Your task to perform on an android device: install app "Airtel Thanks" Image 0: 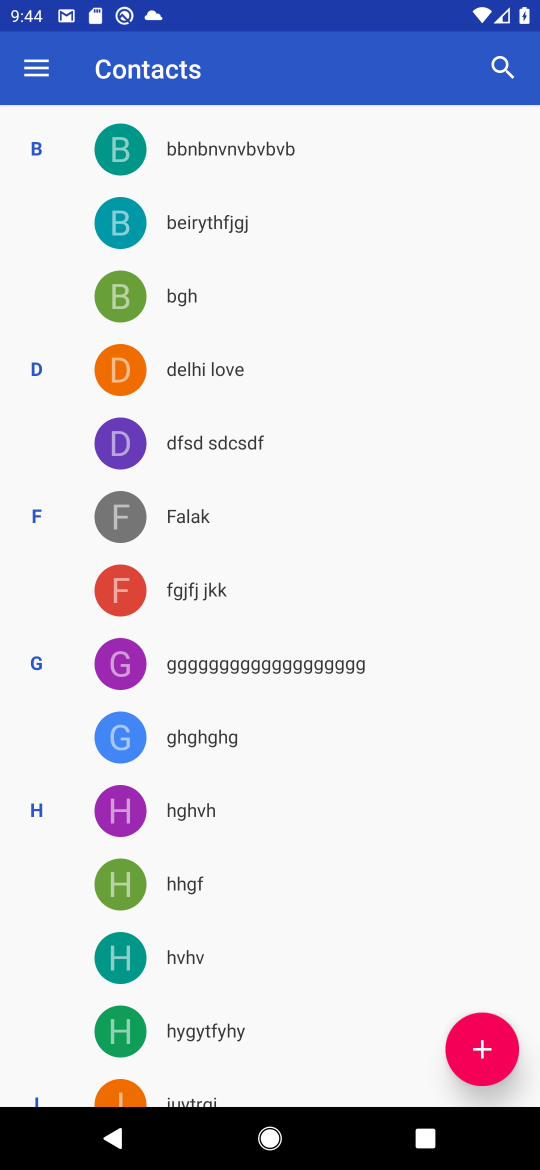
Step 0: press home button
Your task to perform on an android device: install app "Airtel Thanks" Image 1: 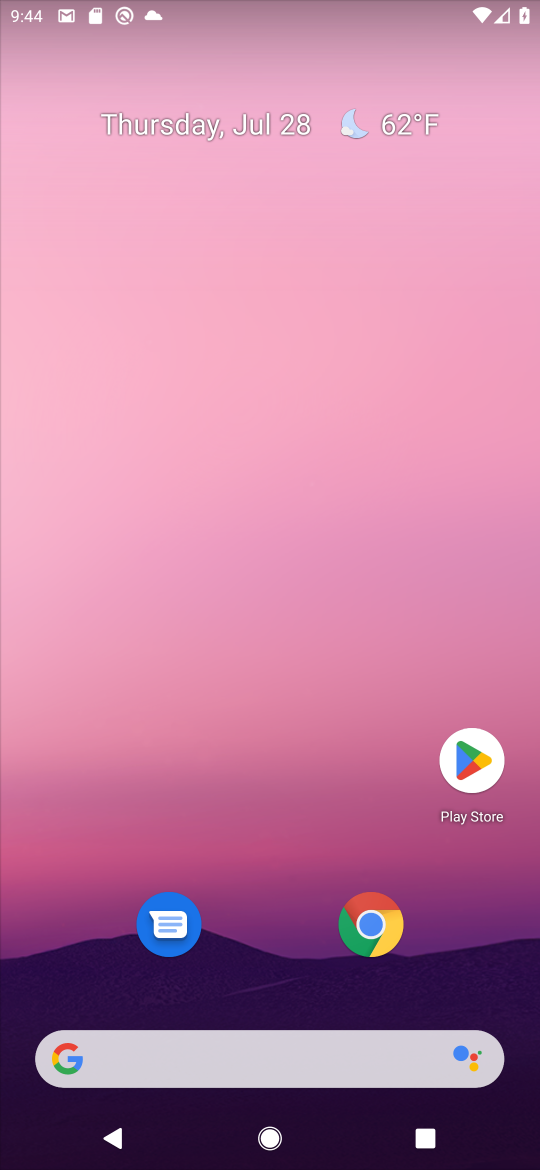
Step 1: click (476, 753)
Your task to perform on an android device: install app "Airtel Thanks" Image 2: 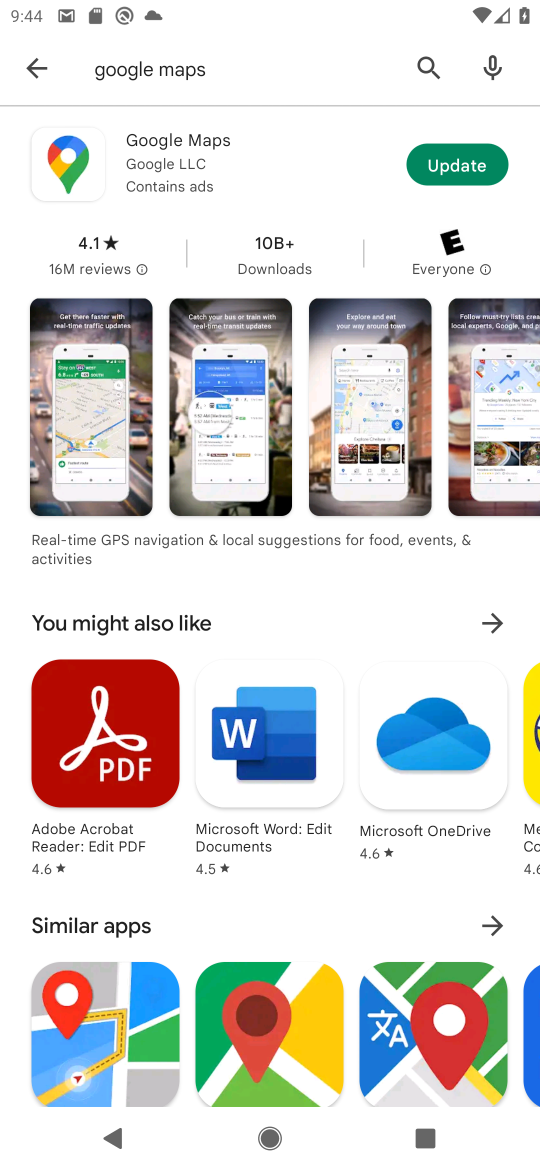
Step 2: click (421, 67)
Your task to perform on an android device: install app "Airtel Thanks" Image 3: 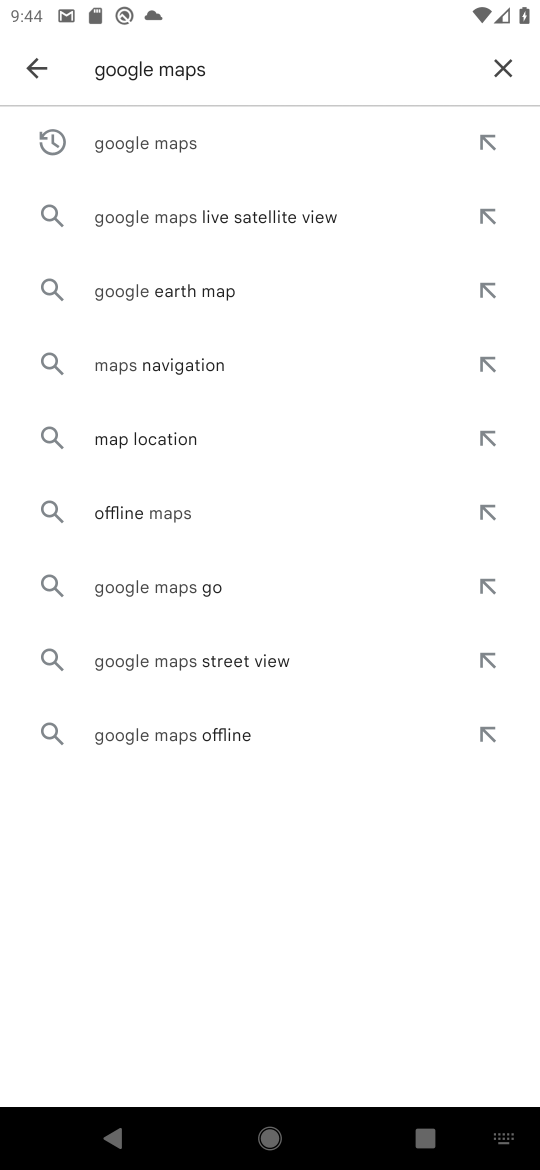
Step 3: click (493, 65)
Your task to perform on an android device: install app "Airtel Thanks" Image 4: 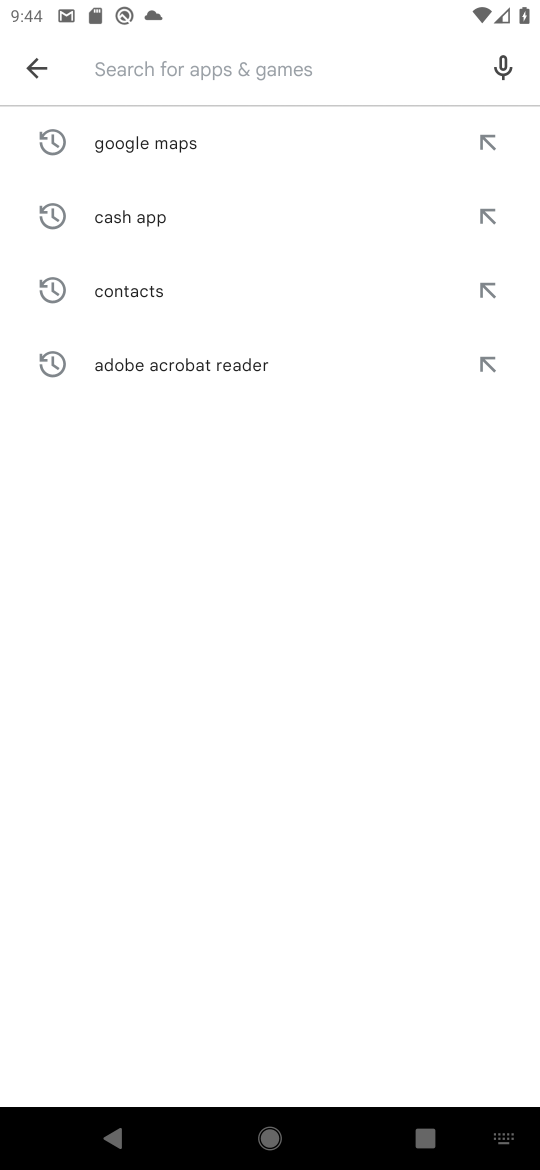
Step 4: click (232, 58)
Your task to perform on an android device: install app "Airtel Thanks" Image 5: 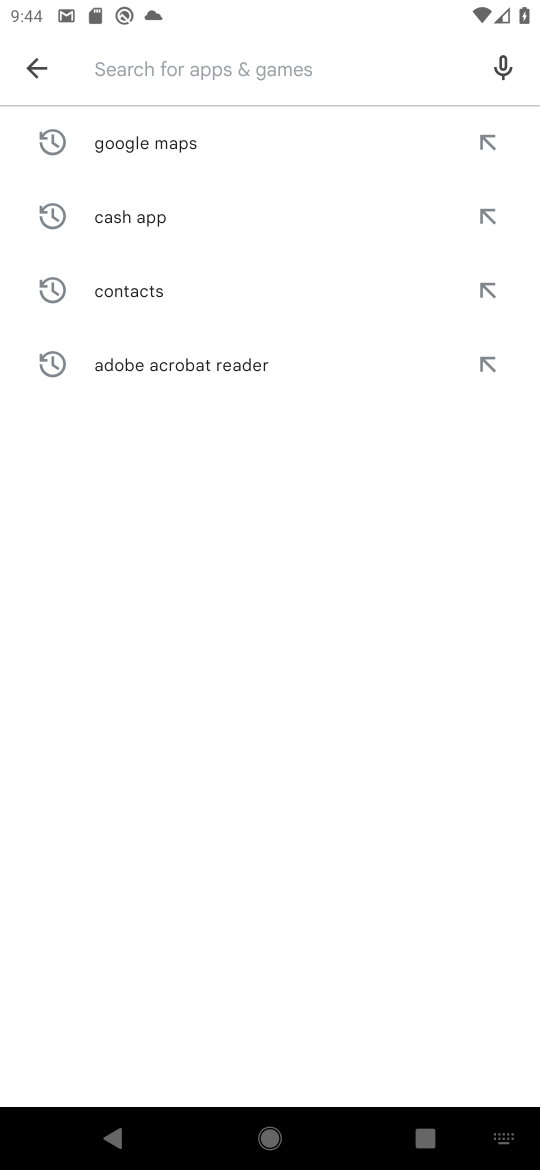
Step 5: type "Airtel Thanks"
Your task to perform on an android device: install app "Airtel Thanks" Image 6: 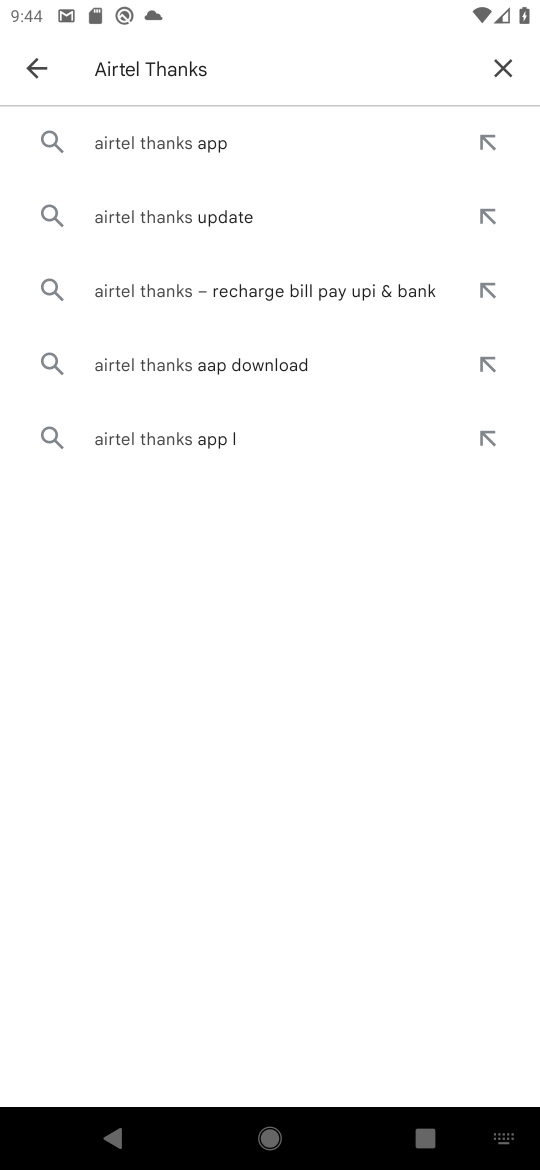
Step 6: click (143, 140)
Your task to perform on an android device: install app "Airtel Thanks" Image 7: 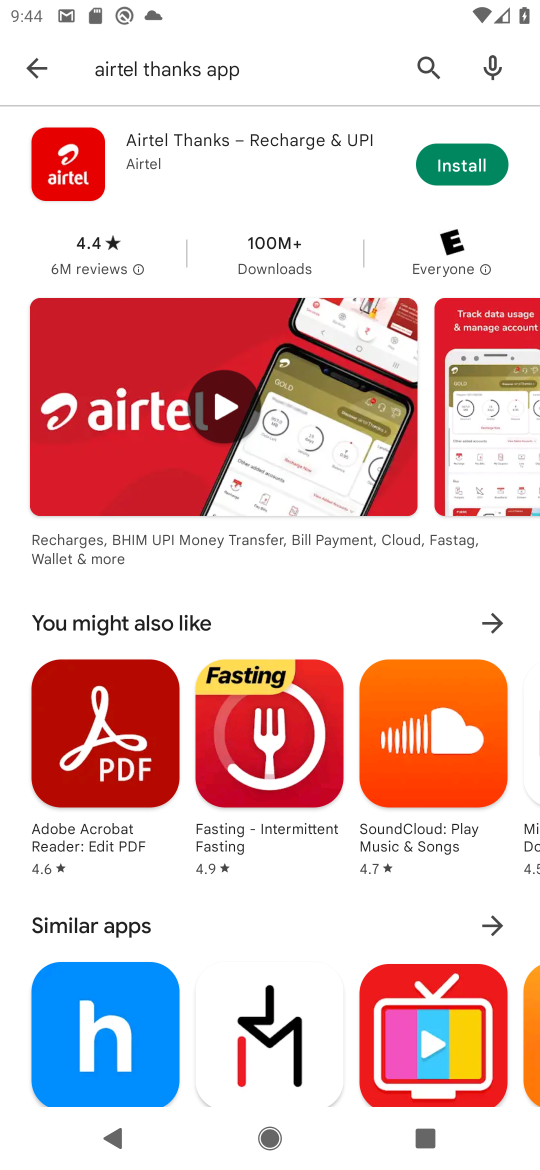
Step 7: click (450, 161)
Your task to perform on an android device: install app "Airtel Thanks" Image 8: 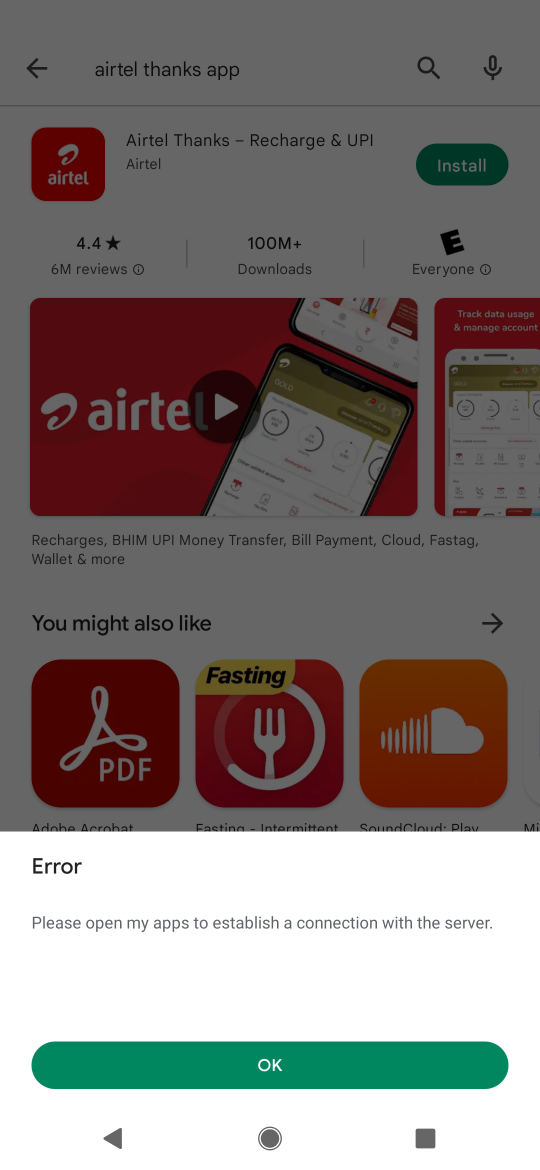
Step 8: click (307, 1070)
Your task to perform on an android device: install app "Airtel Thanks" Image 9: 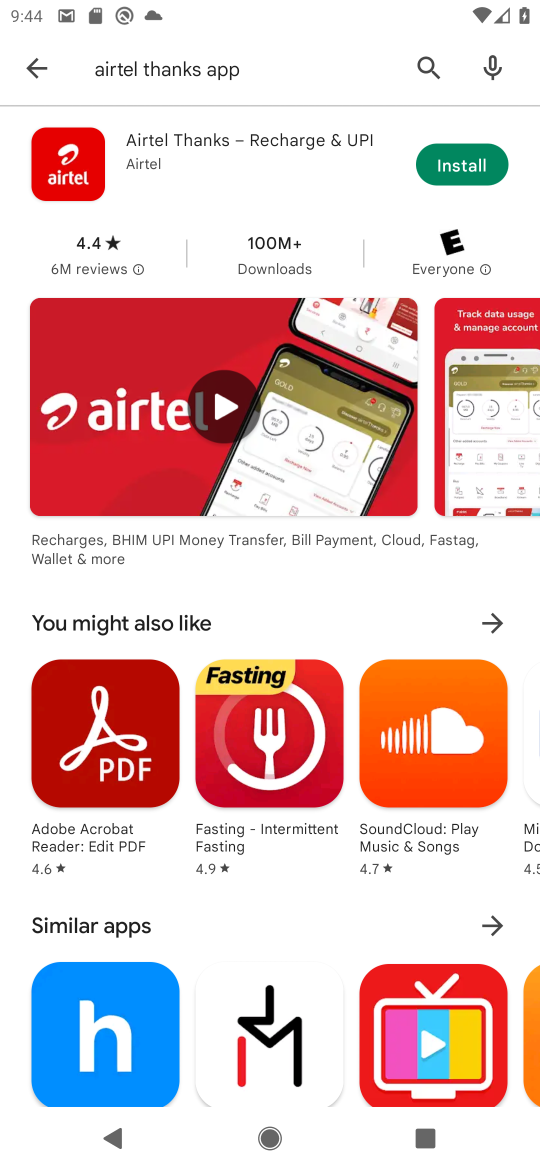
Step 9: task complete